Your task to perform on an android device: turn pop-ups off in chrome Image 0: 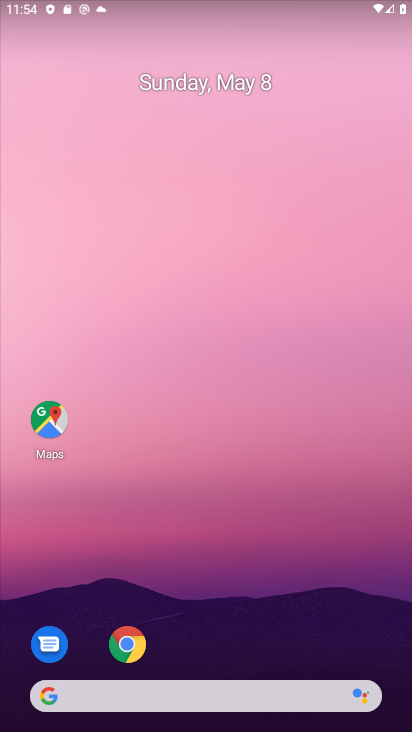
Step 0: click (133, 645)
Your task to perform on an android device: turn pop-ups off in chrome Image 1: 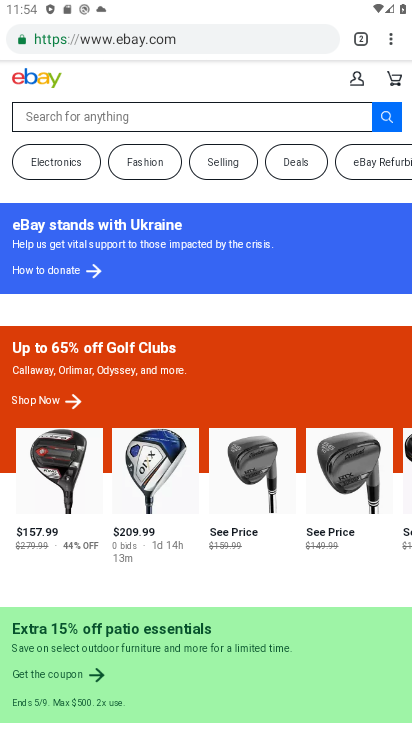
Step 1: click (145, 37)
Your task to perform on an android device: turn pop-ups off in chrome Image 2: 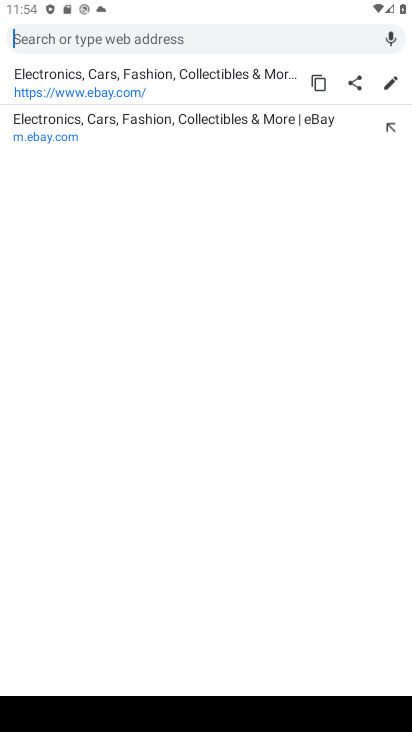
Step 2: click (262, 379)
Your task to perform on an android device: turn pop-ups off in chrome Image 3: 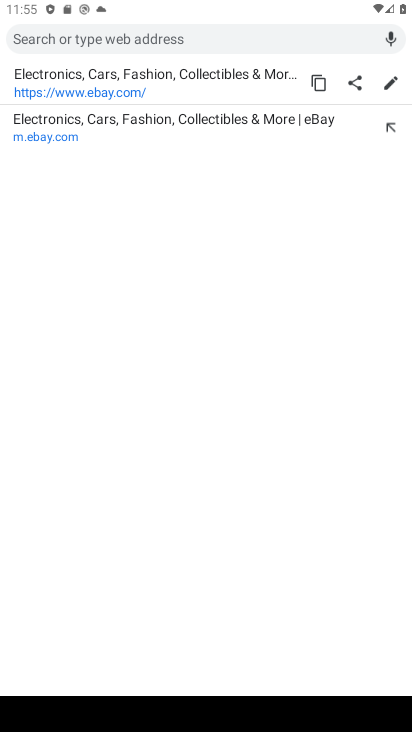
Step 3: press back button
Your task to perform on an android device: turn pop-ups off in chrome Image 4: 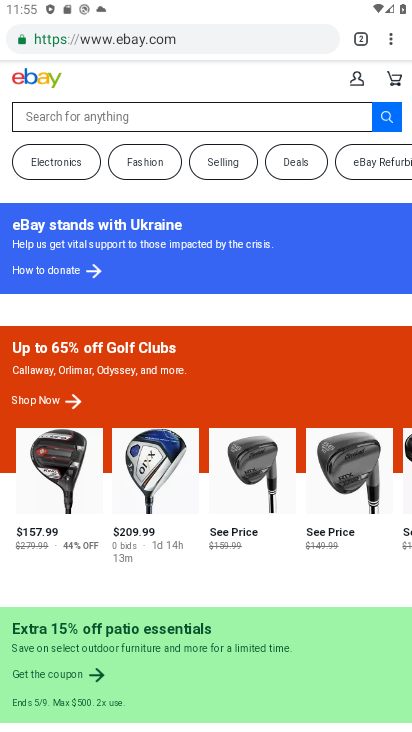
Step 4: click (392, 41)
Your task to perform on an android device: turn pop-ups off in chrome Image 5: 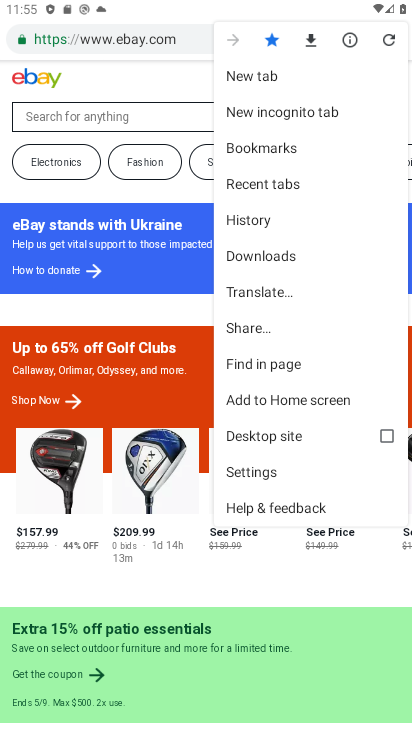
Step 5: click (256, 475)
Your task to perform on an android device: turn pop-ups off in chrome Image 6: 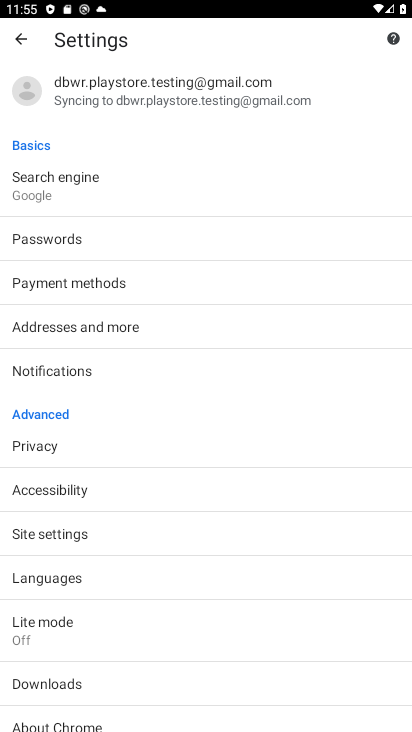
Step 6: click (90, 540)
Your task to perform on an android device: turn pop-ups off in chrome Image 7: 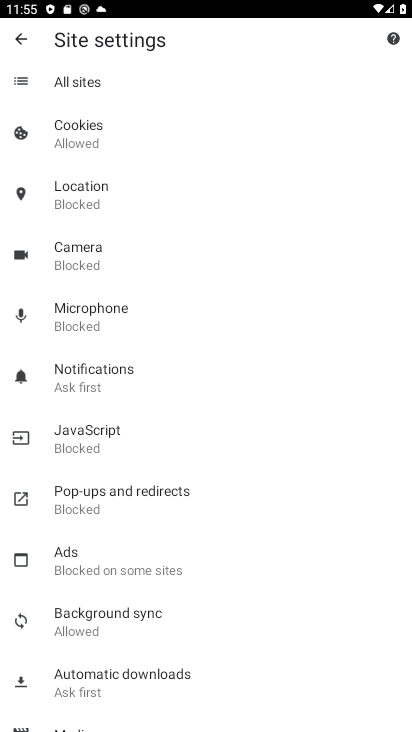
Step 7: click (111, 501)
Your task to perform on an android device: turn pop-ups off in chrome Image 8: 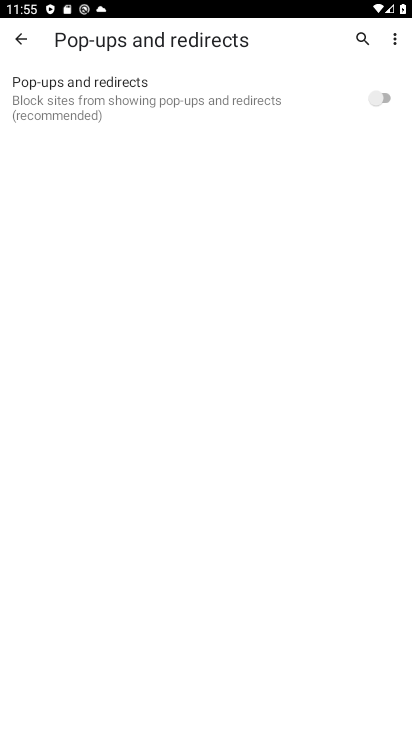
Step 8: task complete